Your task to perform on an android device: check the backup settings in the google photos Image 0: 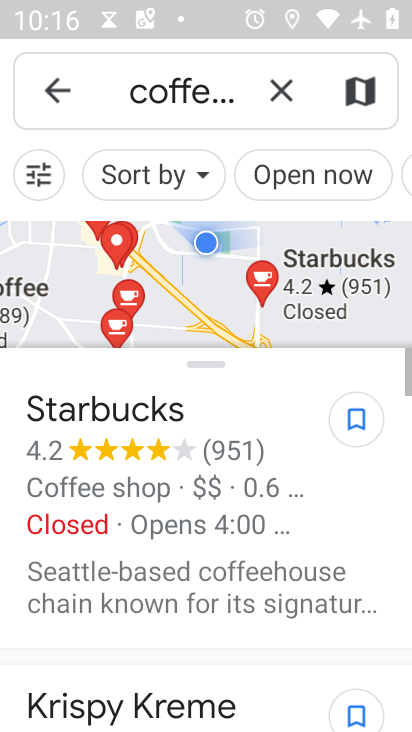
Step 0: press home button
Your task to perform on an android device: check the backup settings in the google photos Image 1: 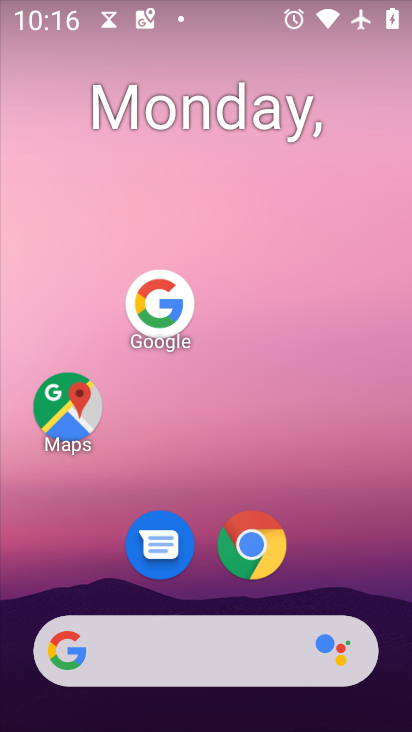
Step 1: drag from (168, 655) to (280, 141)
Your task to perform on an android device: check the backup settings in the google photos Image 2: 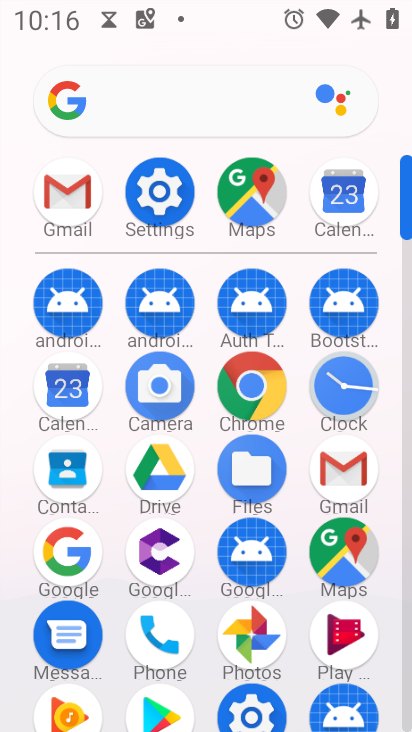
Step 2: click (271, 636)
Your task to perform on an android device: check the backup settings in the google photos Image 3: 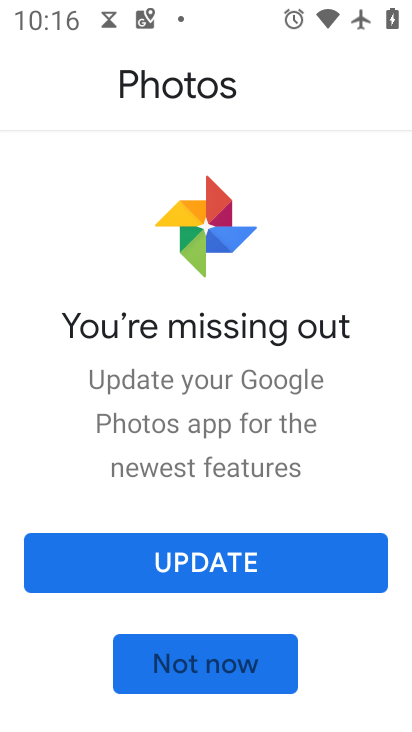
Step 3: click (259, 566)
Your task to perform on an android device: check the backup settings in the google photos Image 4: 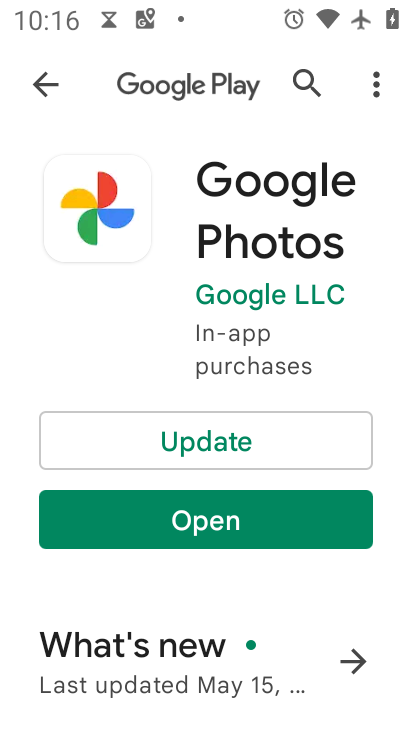
Step 4: click (264, 427)
Your task to perform on an android device: check the backup settings in the google photos Image 5: 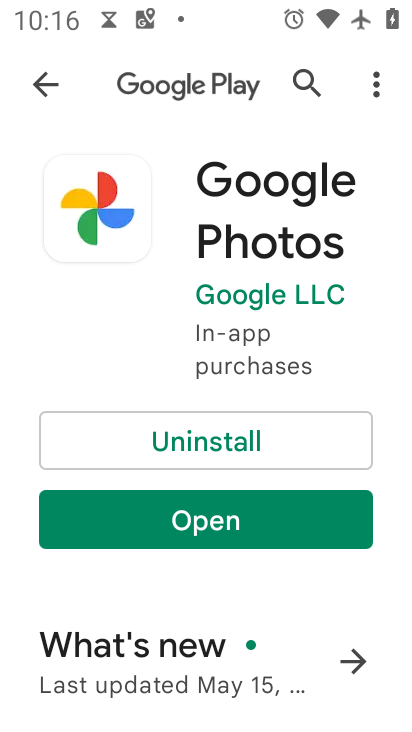
Step 5: click (212, 525)
Your task to perform on an android device: check the backup settings in the google photos Image 6: 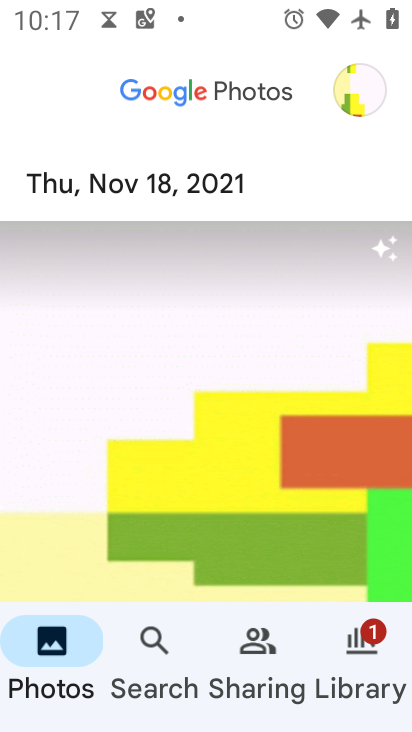
Step 6: click (362, 92)
Your task to perform on an android device: check the backup settings in the google photos Image 7: 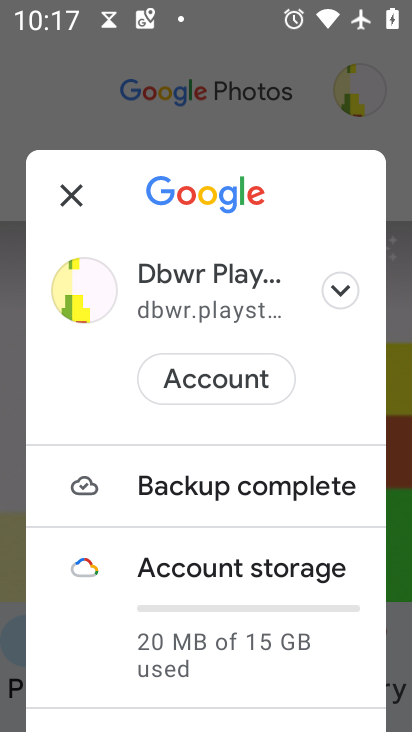
Step 7: drag from (189, 637) to (304, 225)
Your task to perform on an android device: check the backup settings in the google photos Image 8: 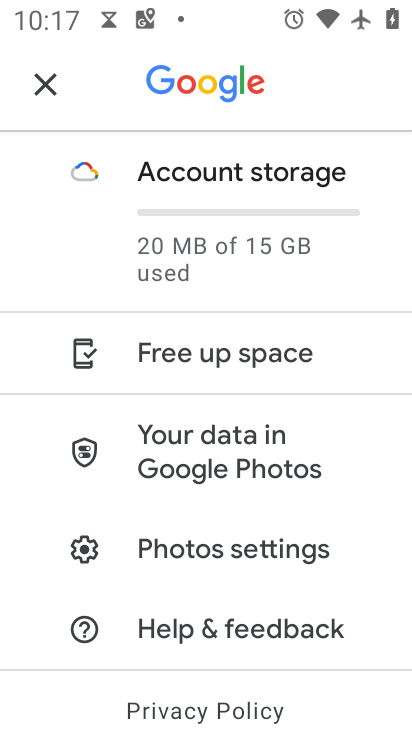
Step 8: click (258, 557)
Your task to perform on an android device: check the backup settings in the google photos Image 9: 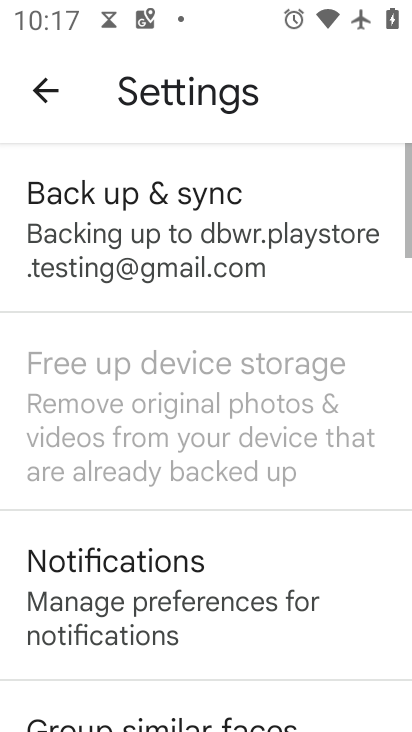
Step 9: click (186, 240)
Your task to perform on an android device: check the backup settings in the google photos Image 10: 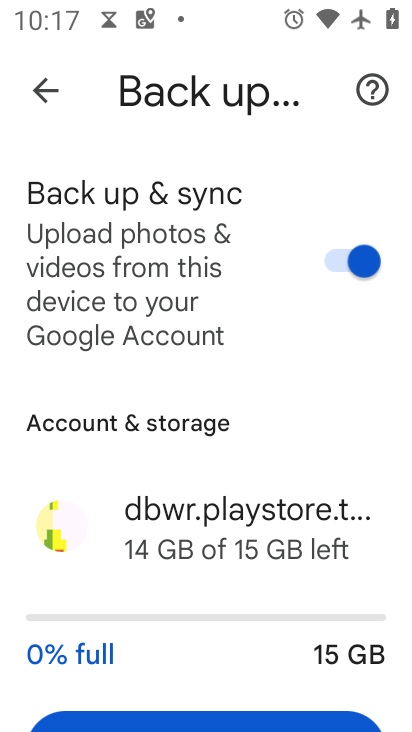
Step 10: task complete